Your task to perform on an android device: Open Google Chrome and open the bookmarks view Image 0: 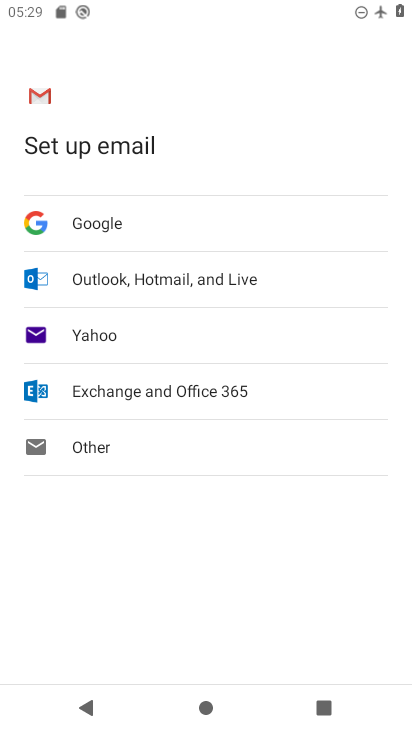
Step 0: press home button
Your task to perform on an android device: Open Google Chrome and open the bookmarks view Image 1: 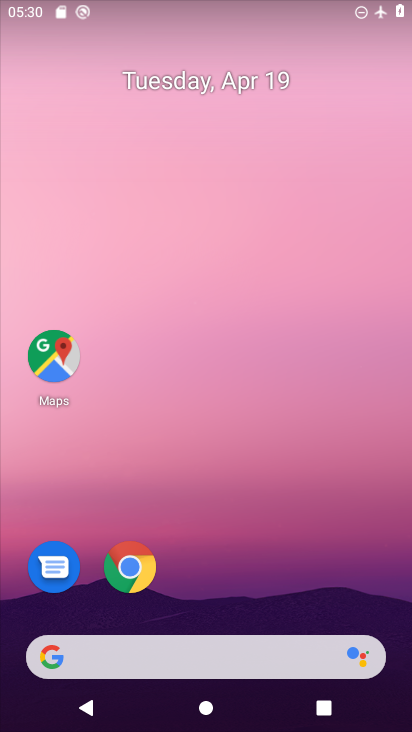
Step 1: drag from (280, 483) to (251, 22)
Your task to perform on an android device: Open Google Chrome and open the bookmarks view Image 2: 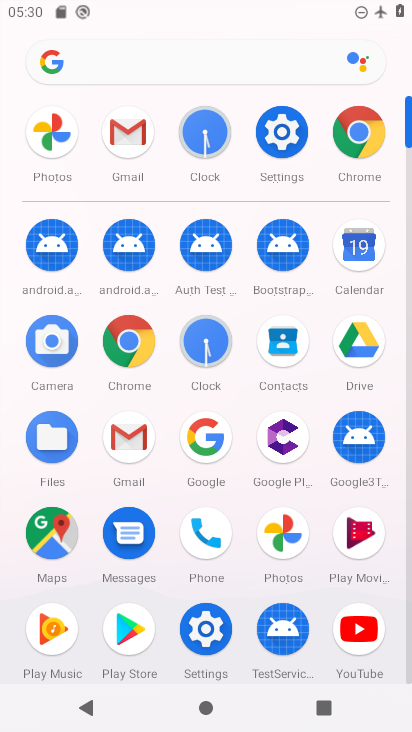
Step 2: click (134, 344)
Your task to perform on an android device: Open Google Chrome and open the bookmarks view Image 3: 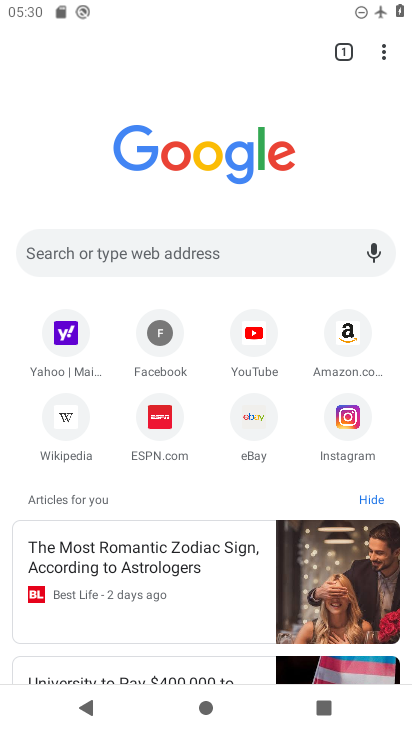
Step 3: click (386, 43)
Your task to perform on an android device: Open Google Chrome and open the bookmarks view Image 4: 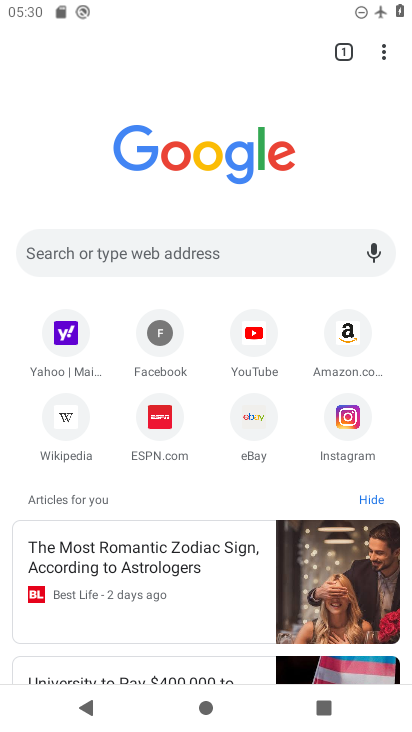
Step 4: click (387, 48)
Your task to perform on an android device: Open Google Chrome and open the bookmarks view Image 5: 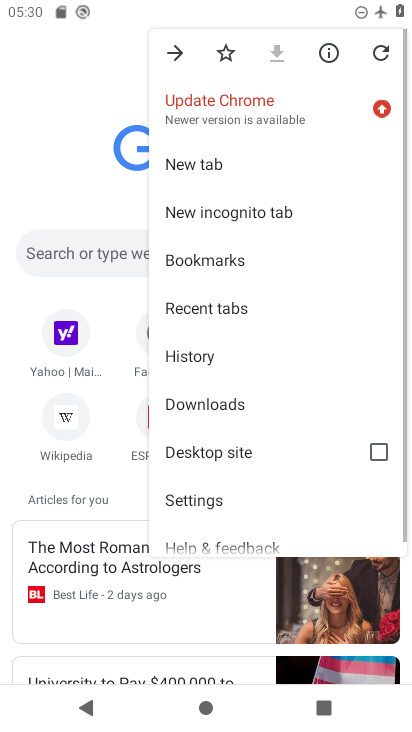
Step 5: click (254, 257)
Your task to perform on an android device: Open Google Chrome and open the bookmarks view Image 6: 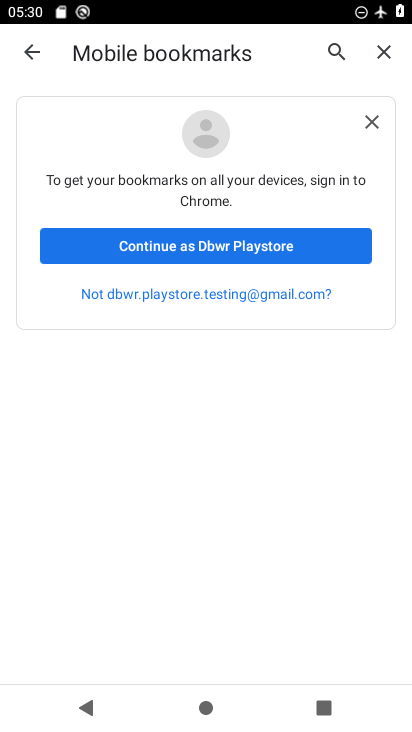
Step 6: task complete